Your task to perform on an android device: check data usage Image 0: 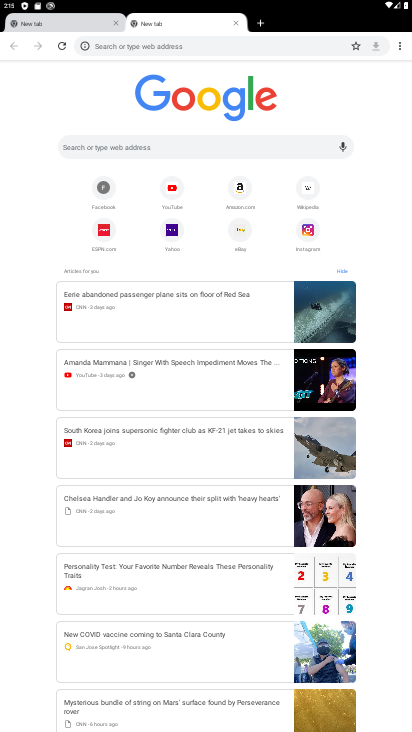
Step 0: press home button
Your task to perform on an android device: check data usage Image 1: 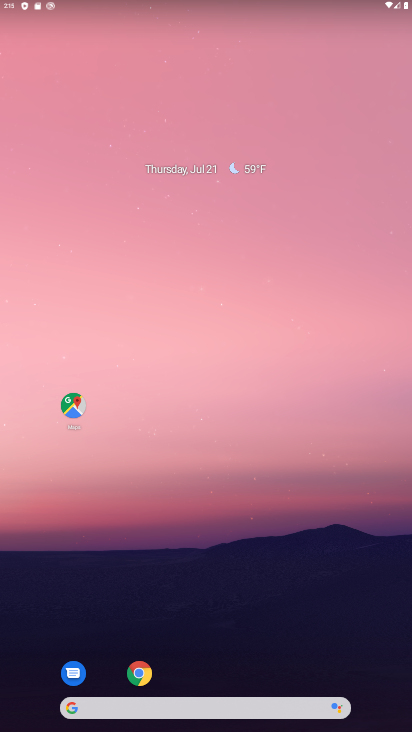
Step 1: drag from (371, 671) to (308, 136)
Your task to perform on an android device: check data usage Image 2: 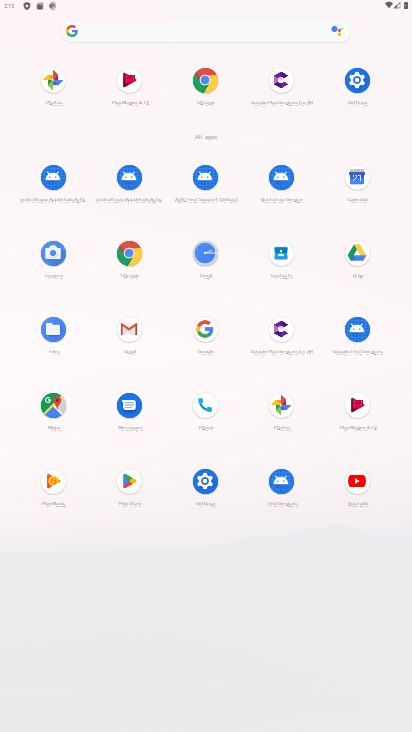
Step 2: click (206, 485)
Your task to perform on an android device: check data usage Image 3: 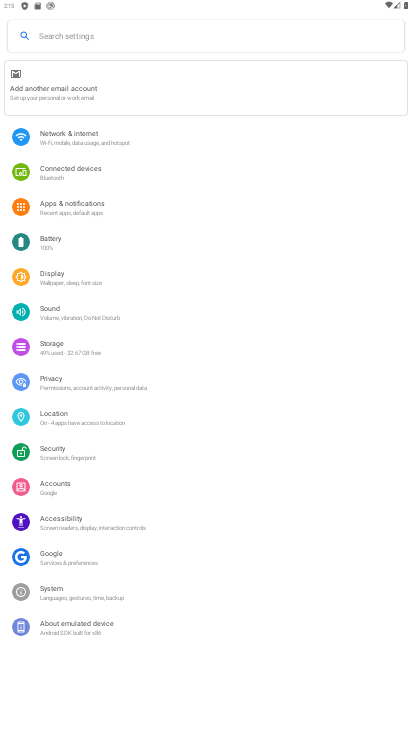
Step 3: click (69, 136)
Your task to perform on an android device: check data usage Image 4: 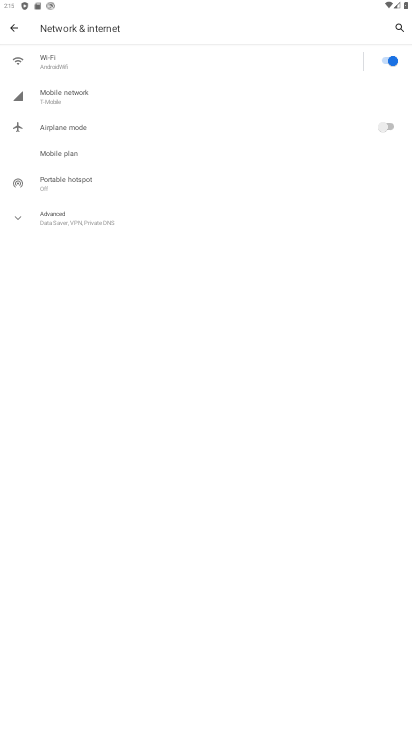
Step 4: click (55, 98)
Your task to perform on an android device: check data usage Image 5: 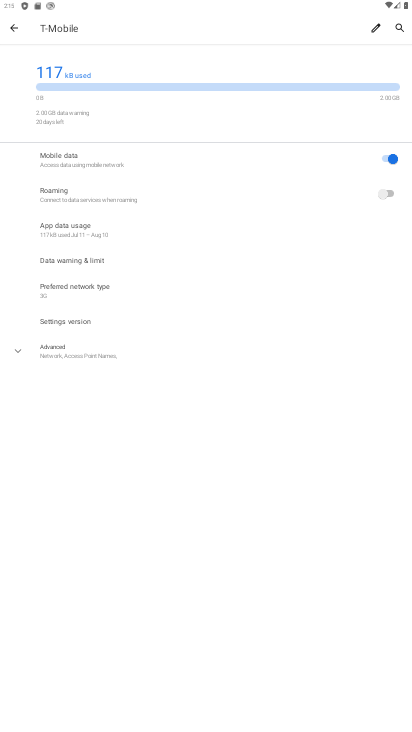
Step 5: task complete